Your task to perform on an android device: Open the web browser Image 0: 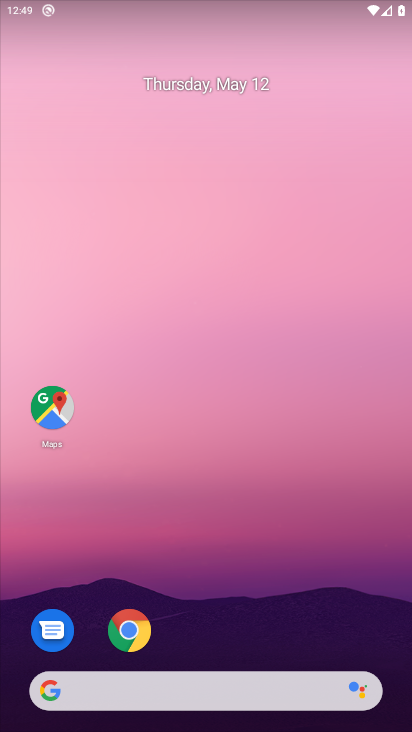
Step 0: drag from (210, 611) to (213, 20)
Your task to perform on an android device: Open the web browser Image 1: 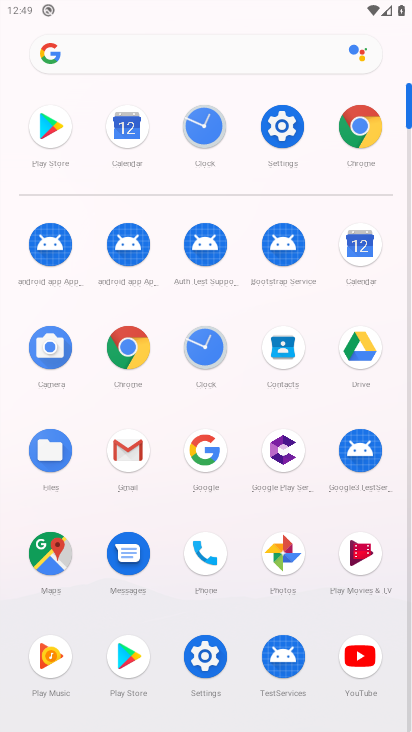
Step 1: click (353, 125)
Your task to perform on an android device: Open the web browser Image 2: 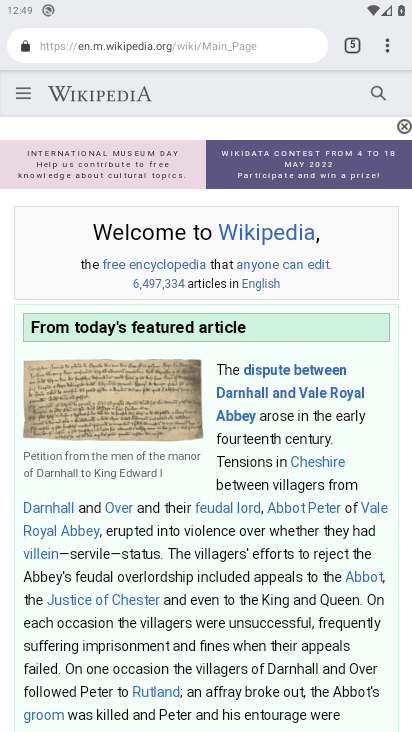
Step 2: click (145, 44)
Your task to perform on an android device: Open the web browser Image 3: 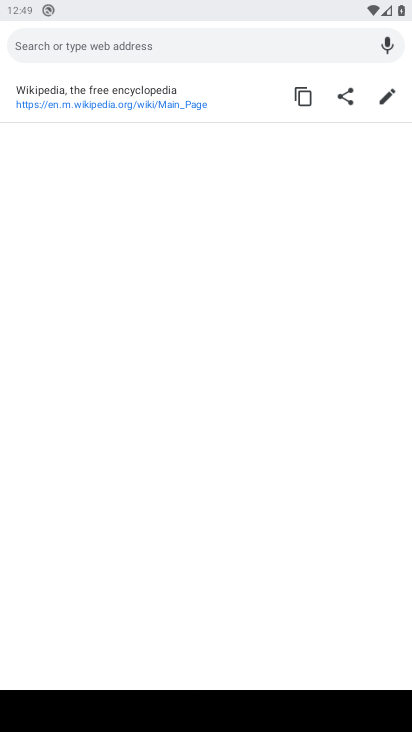
Step 3: type "web browser"
Your task to perform on an android device: Open the web browser Image 4: 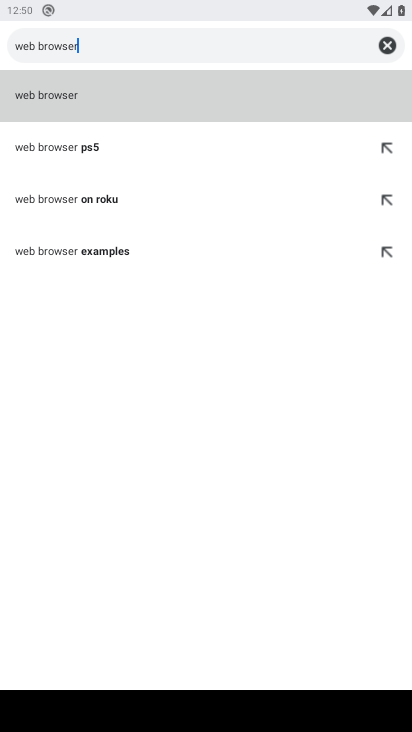
Step 4: click (70, 92)
Your task to perform on an android device: Open the web browser Image 5: 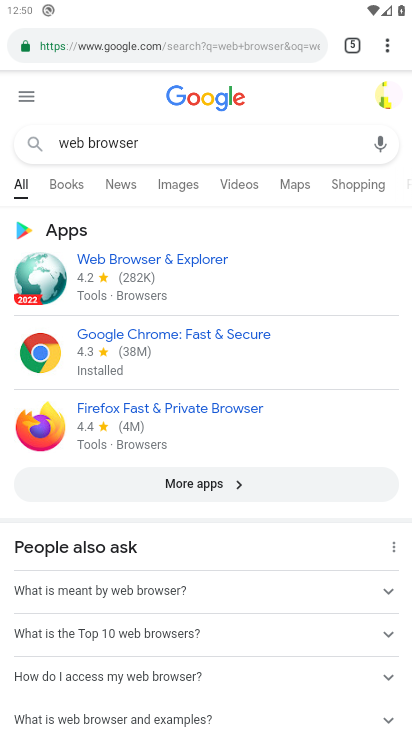
Step 5: task complete